Your task to perform on an android device: toggle pop-ups in chrome Image 0: 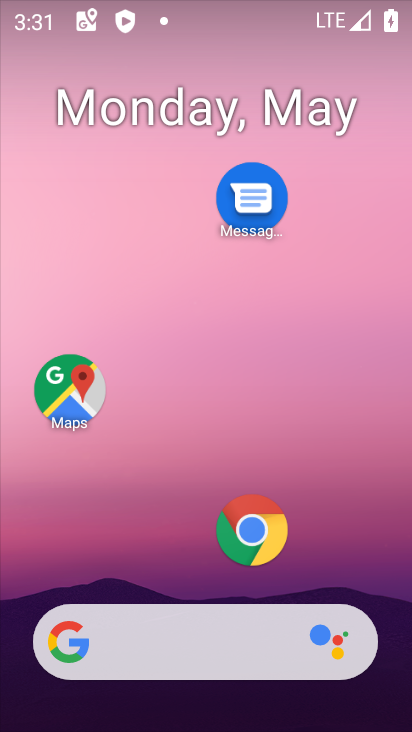
Step 0: click (246, 530)
Your task to perform on an android device: toggle pop-ups in chrome Image 1: 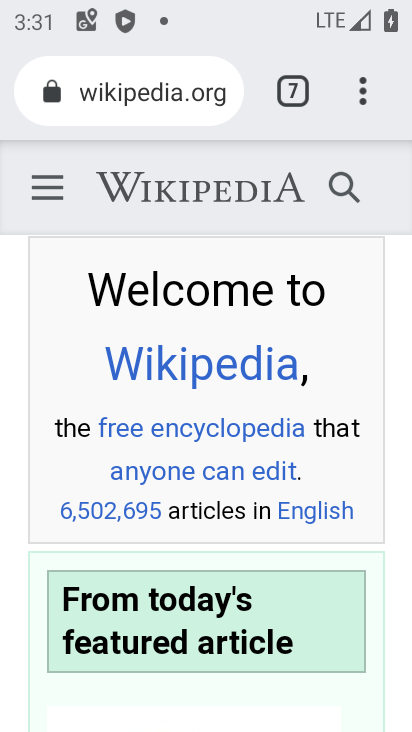
Step 1: drag from (367, 86) to (112, 557)
Your task to perform on an android device: toggle pop-ups in chrome Image 2: 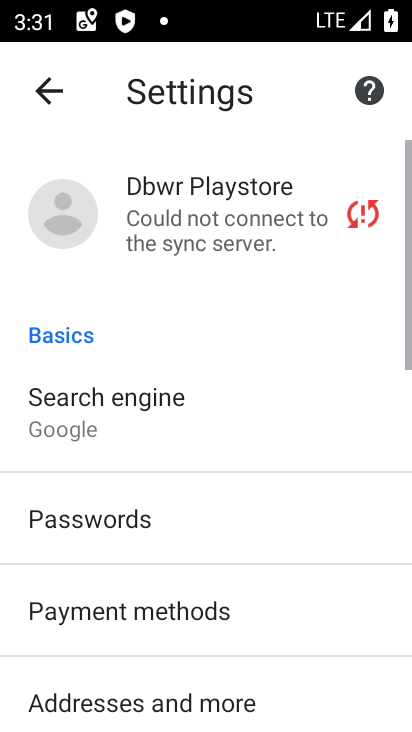
Step 2: drag from (110, 656) to (134, 243)
Your task to perform on an android device: toggle pop-ups in chrome Image 3: 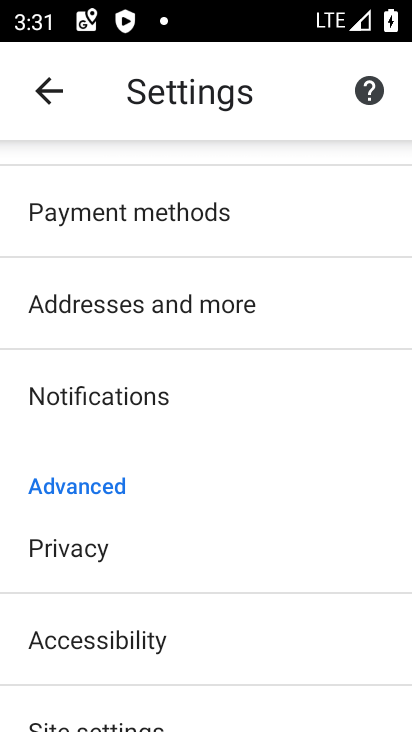
Step 3: click (140, 723)
Your task to perform on an android device: toggle pop-ups in chrome Image 4: 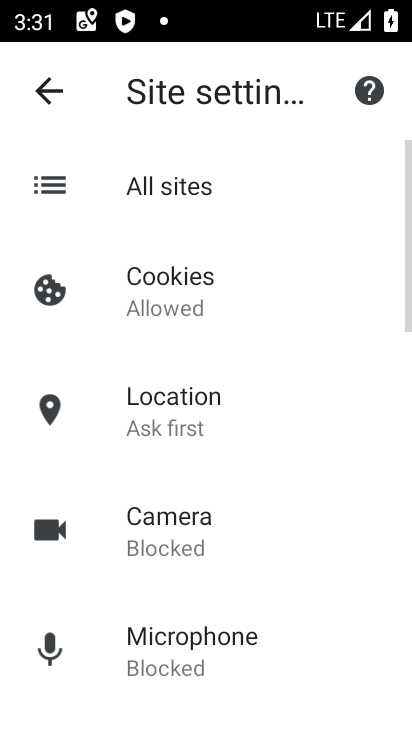
Step 4: drag from (192, 650) to (321, 118)
Your task to perform on an android device: toggle pop-ups in chrome Image 5: 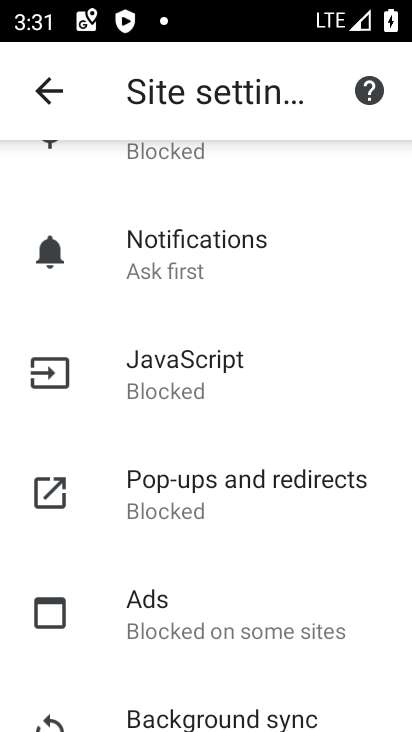
Step 5: click (199, 491)
Your task to perform on an android device: toggle pop-ups in chrome Image 6: 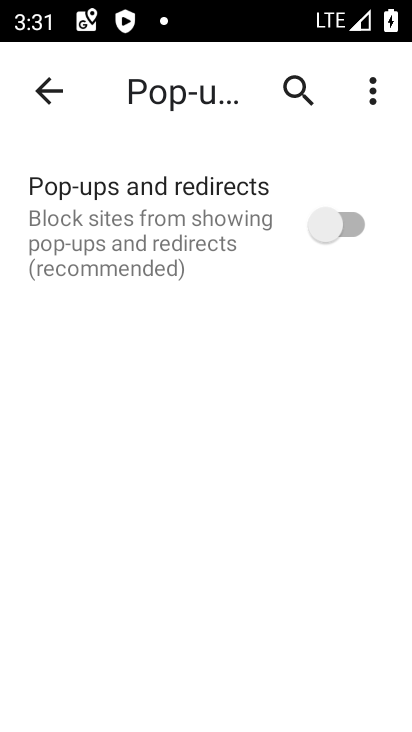
Step 6: click (327, 232)
Your task to perform on an android device: toggle pop-ups in chrome Image 7: 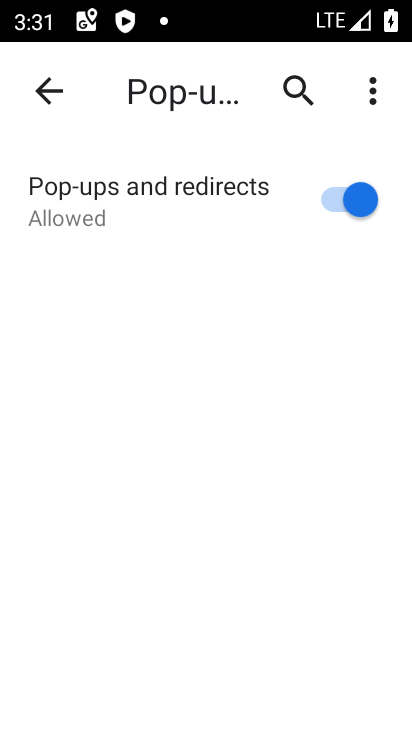
Step 7: task complete